Your task to perform on an android device: Do I have any events this weekend? Image 0: 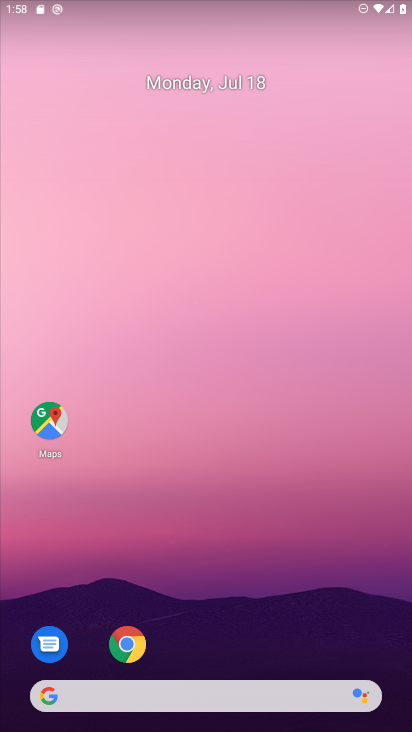
Step 0: press home button
Your task to perform on an android device: Do I have any events this weekend? Image 1: 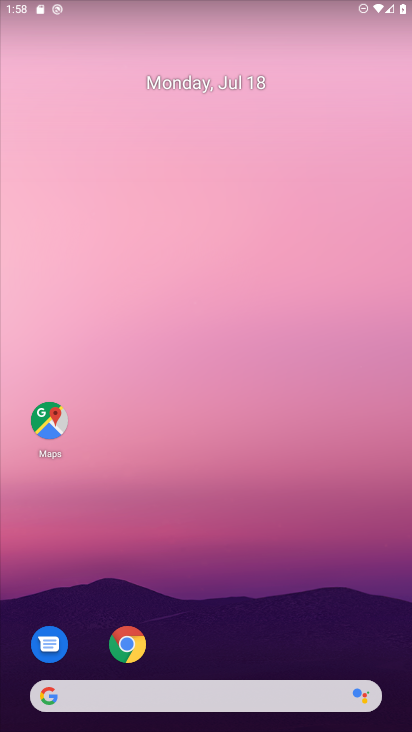
Step 1: drag from (311, 582) to (243, 1)
Your task to perform on an android device: Do I have any events this weekend? Image 2: 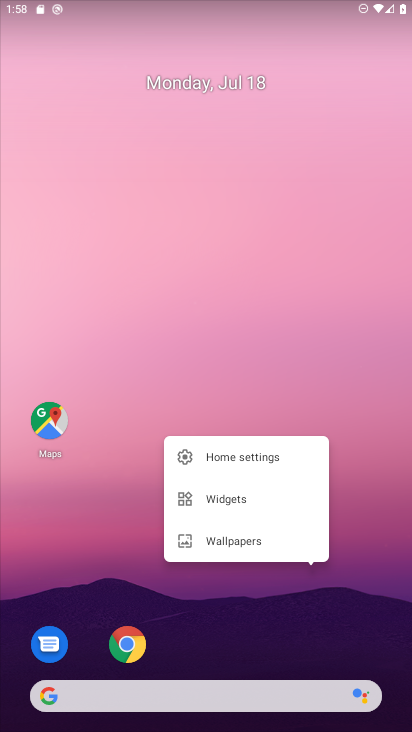
Step 2: click (275, 370)
Your task to perform on an android device: Do I have any events this weekend? Image 3: 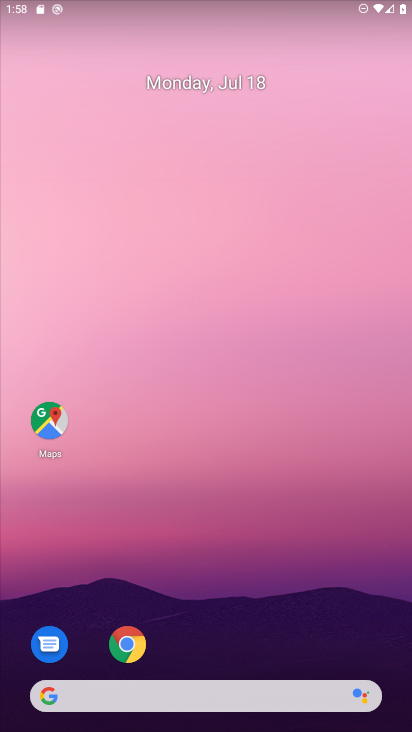
Step 3: drag from (275, 370) to (220, 3)
Your task to perform on an android device: Do I have any events this weekend? Image 4: 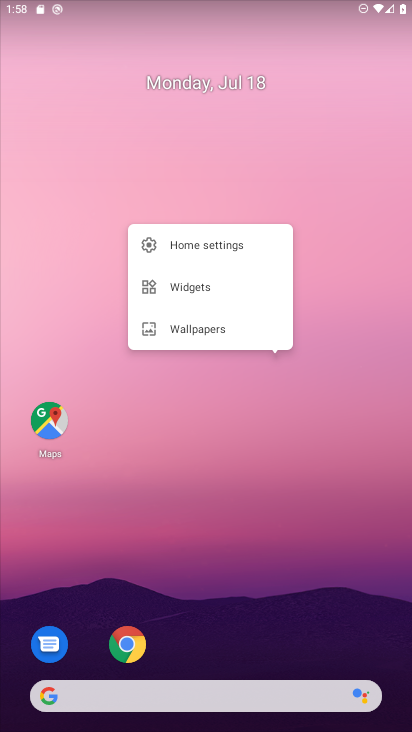
Step 4: click (299, 545)
Your task to perform on an android device: Do I have any events this weekend? Image 5: 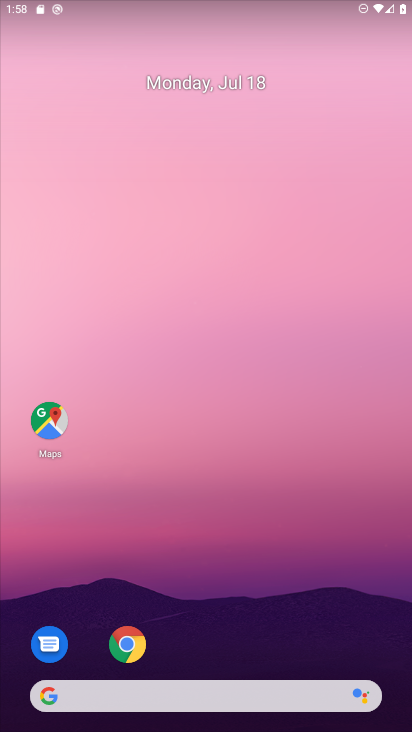
Step 5: drag from (299, 545) to (251, 11)
Your task to perform on an android device: Do I have any events this weekend? Image 6: 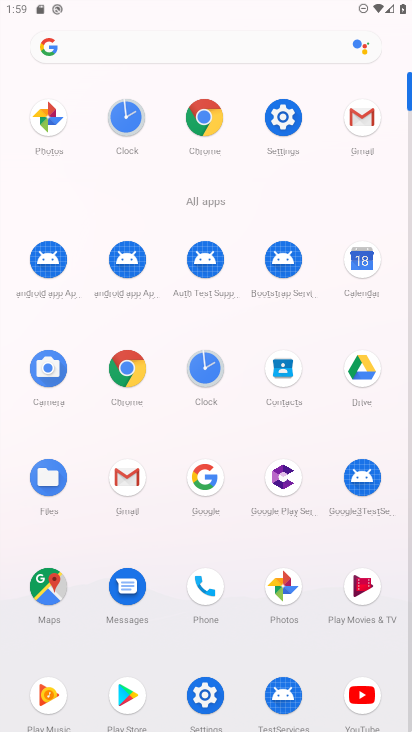
Step 6: click (356, 262)
Your task to perform on an android device: Do I have any events this weekend? Image 7: 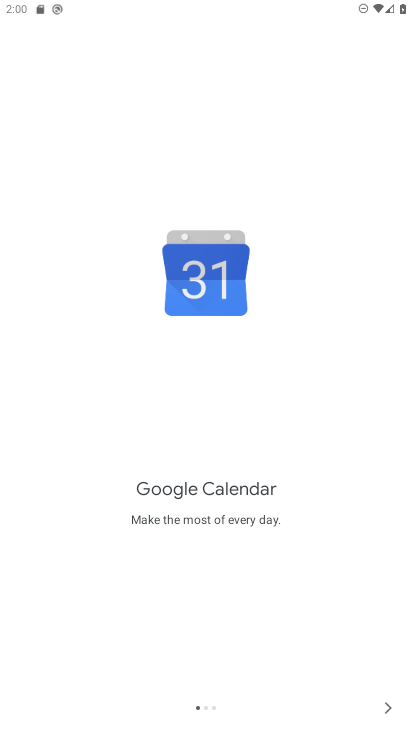
Step 7: click (393, 710)
Your task to perform on an android device: Do I have any events this weekend? Image 8: 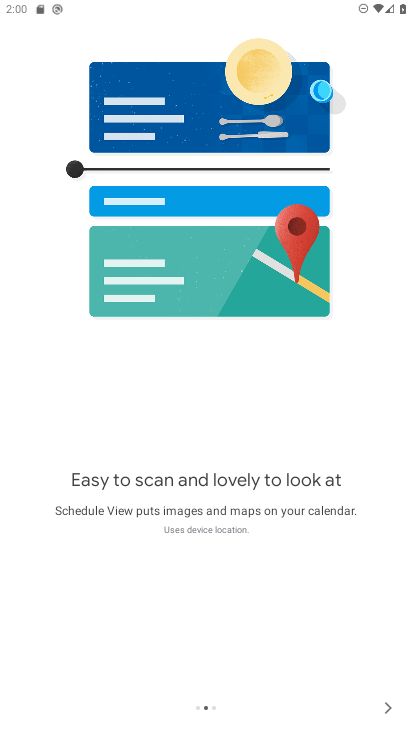
Step 8: click (393, 710)
Your task to perform on an android device: Do I have any events this weekend? Image 9: 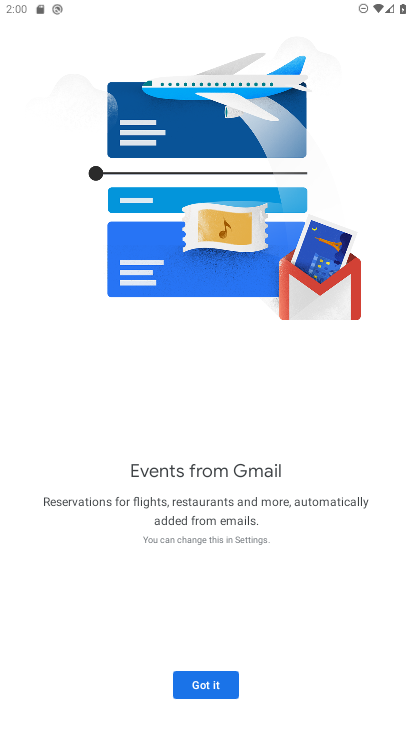
Step 9: click (393, 710)
Your task to perform on an android device: Do I have any events this weekend? Image 10: 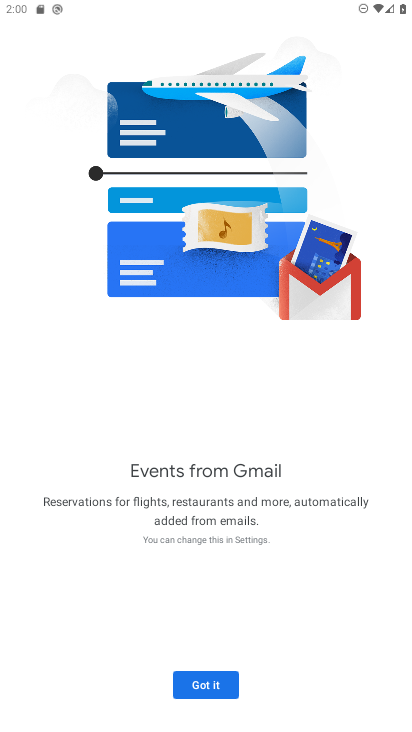
Step 10: click (213, 685)
Your task to perform on an android device: Do I have any events this weekend? Image 11: 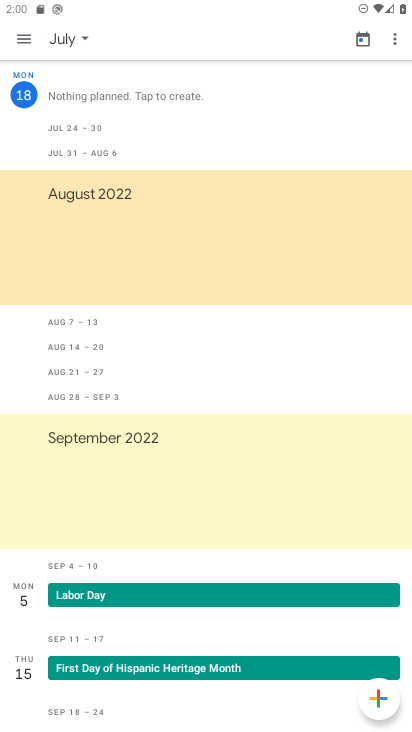
Step 11: click (22, 46)
Your task to perform on an android device: Do I have any events this weekend? Image 12: 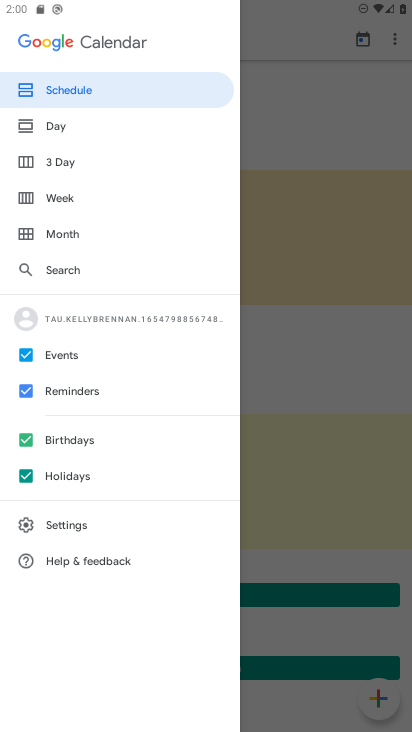
Step 12: click (79, 190)
Your task to perform on an android device: Do I have any events this weekend? Image 13: 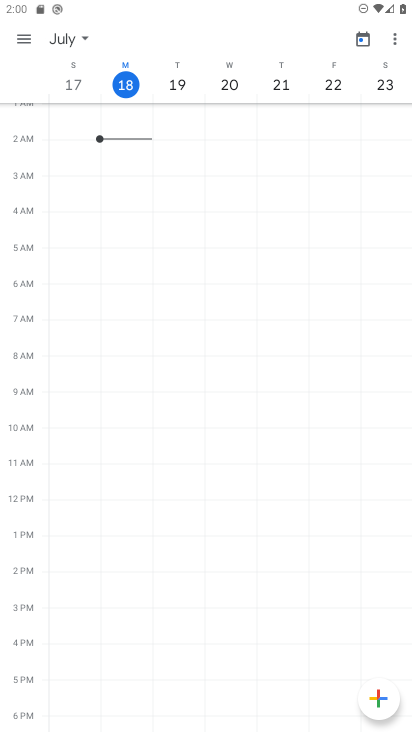
Step 13: click (386, 86)
Your task to perform on an android device: Do I have any events this weekend? Image 14: 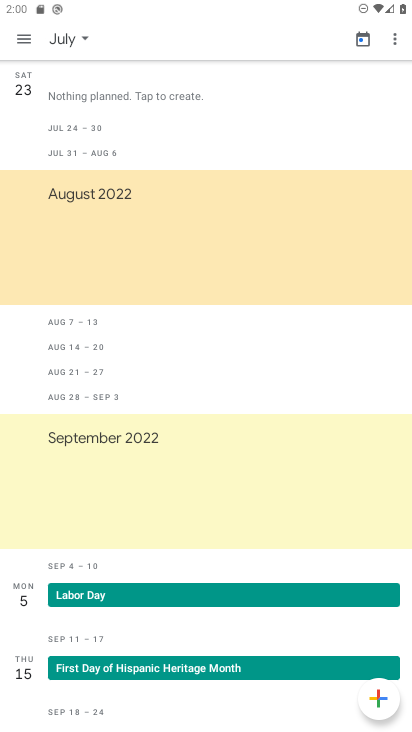
Step 14: task complete